Your task to perform on an android device: open chrome privacy settings Image 0: 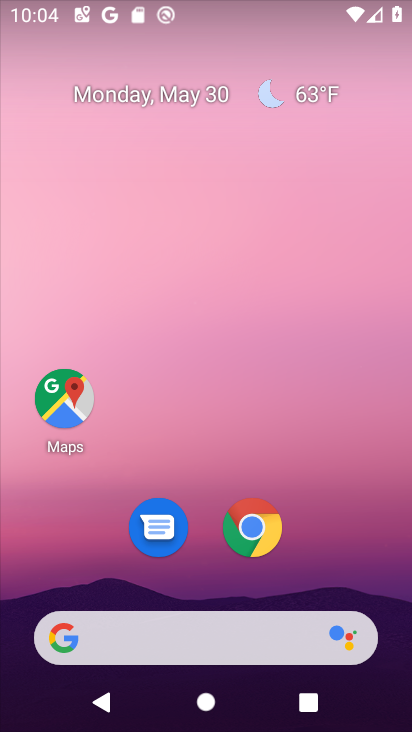
Step 0: drag from (326, 546) to (300, 253)
Your task to perform on an android device: open chrome privacy settings Image 1: 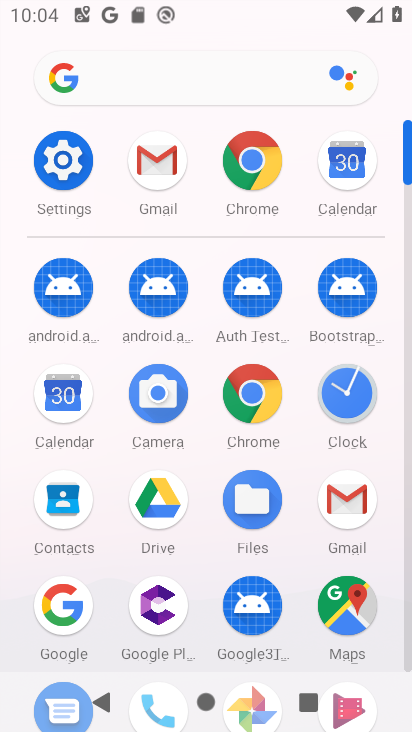
Step 1: click (61, 163)
Your task to perform on an android device: open chrome privacy settings Image 2: 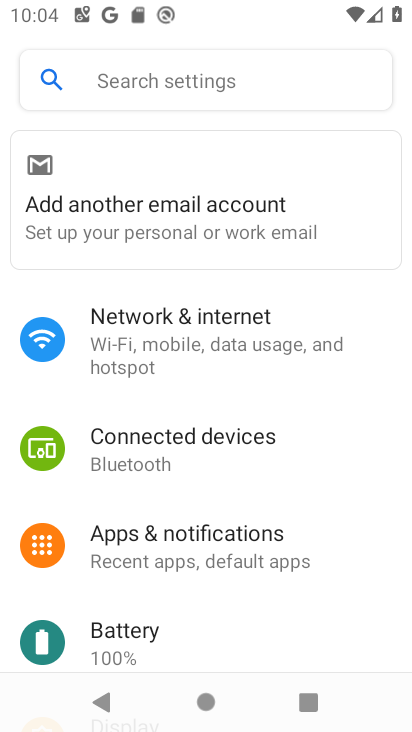
Step 2: drag from (212, 608) to (237, 324)
Your task to perform on an android device: open chrome privacy settings Image 3: 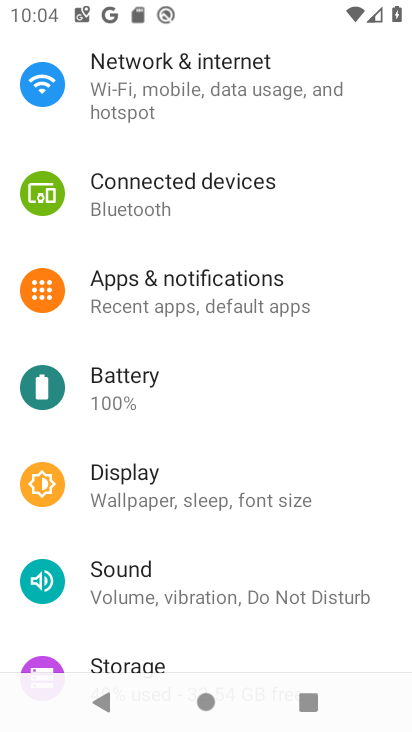
Step 3: drag from (199, 555) to (238, 277)
Your task to perform on an android device: open chrome privacy settings Image 4: 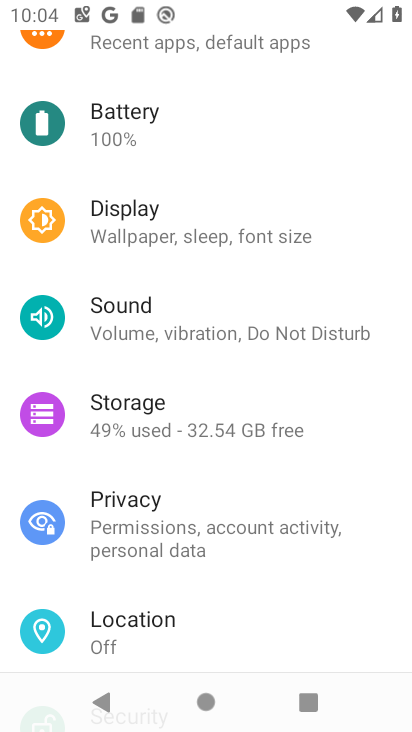
Step 4: click (204, 524)
Your task to perform on an android device: open chrome privacy settings Image 5: 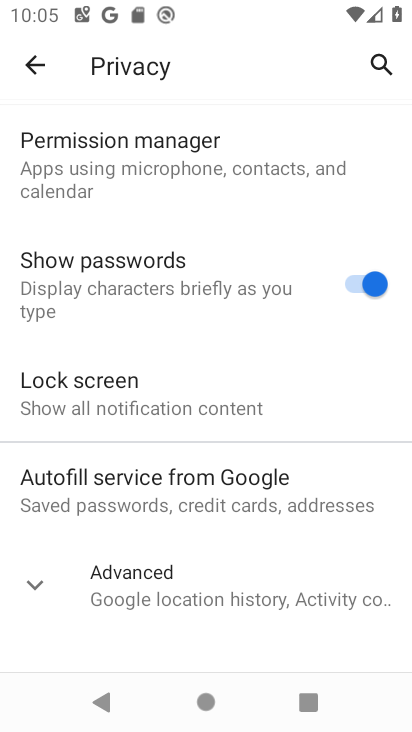
Step 5: task complete